Your task to perform on an android device: turn off translation in the chrome app Image 0: 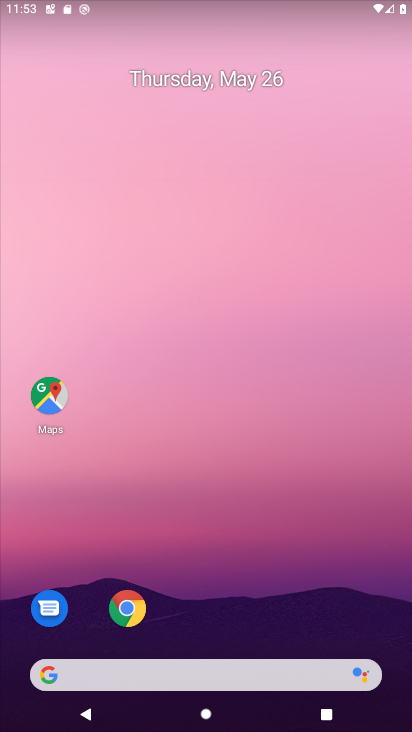
Step 0: click (131, 606)
Your task to perform on an android device: turn off translation in the chrome app Image 1: 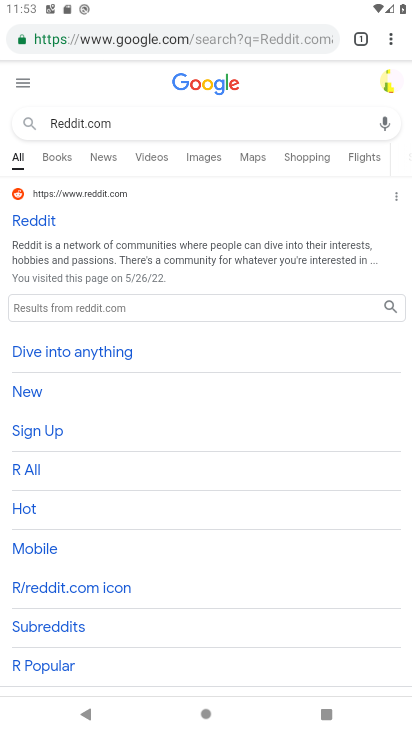
Step 1: click (391, 37)
Your task to perform on an android device: turn off translation in the chrome app Image 2: 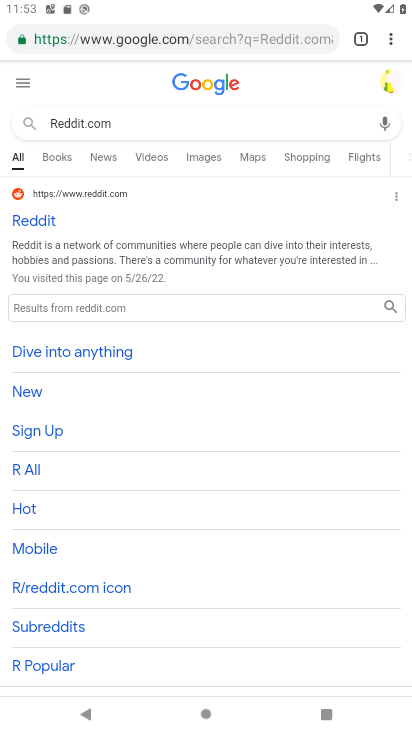
Step 2: click (391, 36)
Your task to perform on an android device: turn off translation in the chrome app Image 3: 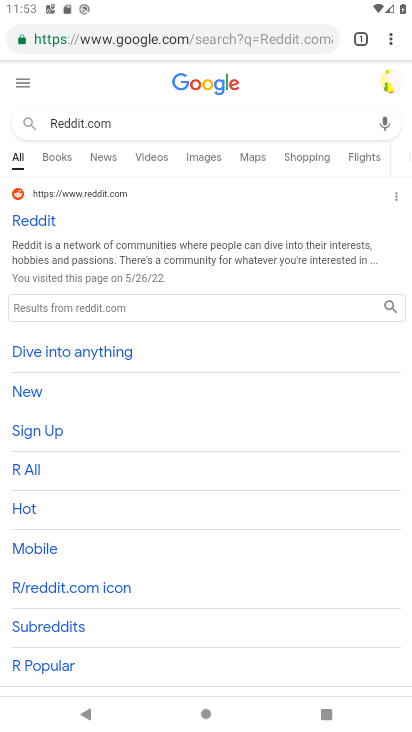
Step 3: click (389, 37)
Your task to perform on an android device: turn off translation in the chrome app Image 4: 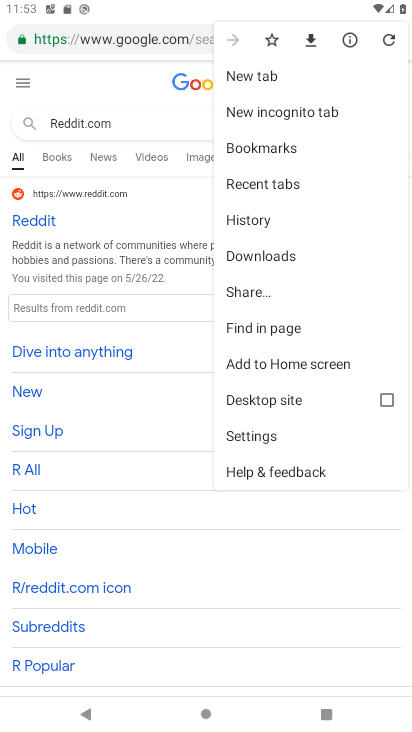
Step 4: click (262, 432)
Your task to perform on an android device: turn off translation in the chrome app Image 5: 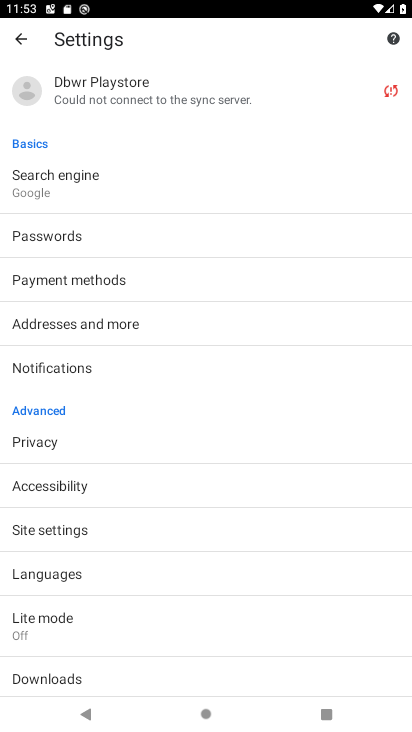
Step 5: click (74, 578)
Your task to perform on an android device: turn off translation in the chrome app Image 6: 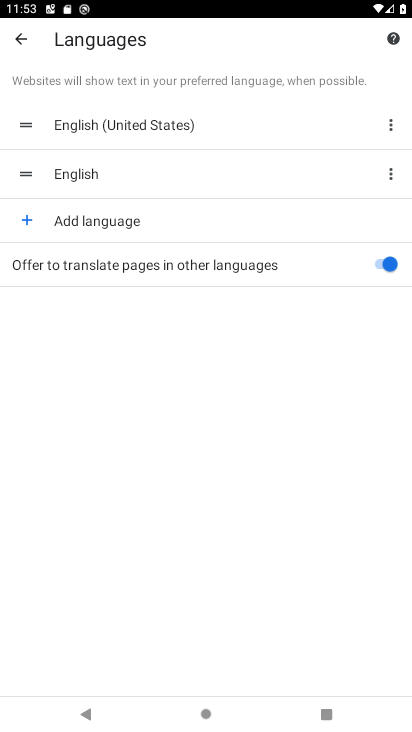
Step 6: click (374, 262)
Your task to perform on an android device: turn off translation in the chrome app Image 7: 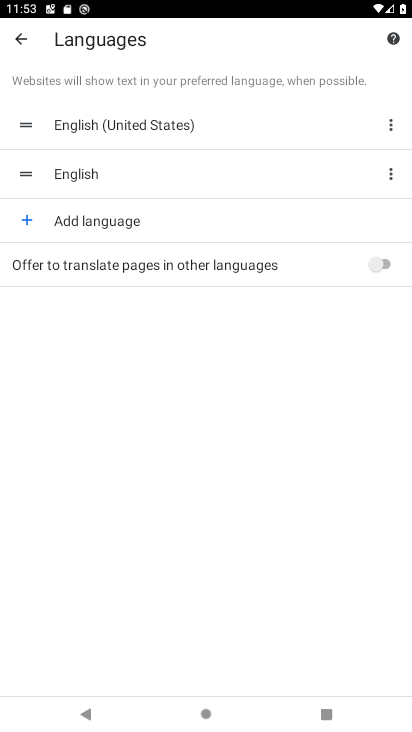
Step 7: task complete